Your task to perform on an android device: turn off priority inbox in the gmail app Image 0: 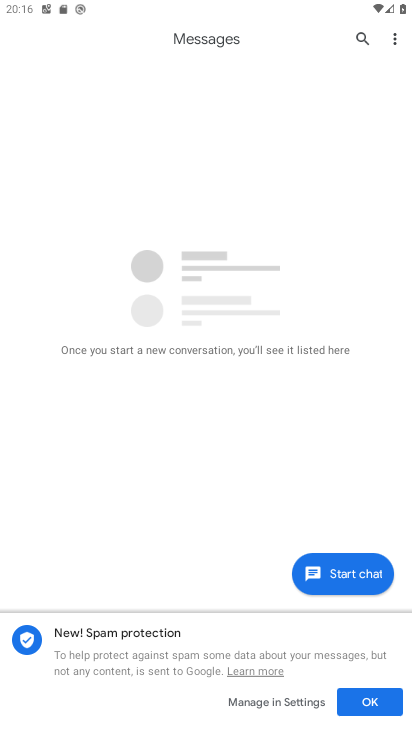
Step 0: press home button
Your task to perform on an android device: turn off priority inbox in the gmail app Image 1: 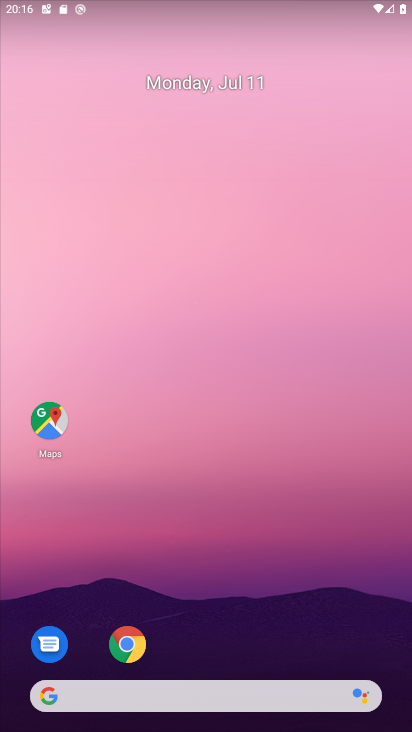
Step 1: drag from (220, 678) to (195, 125)
Your task to perform on an android device: turn off priority inbox in the gmail app Image 2: 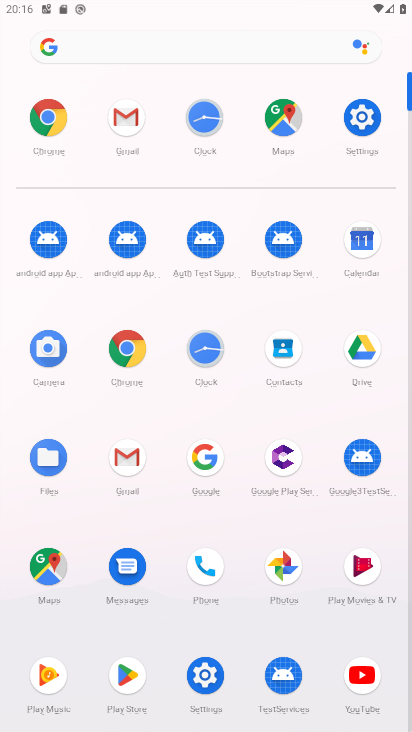
Step 2: click (195, 444)
Your task to perform on an android device: turn off priority inbox in the gmail app Image 3: 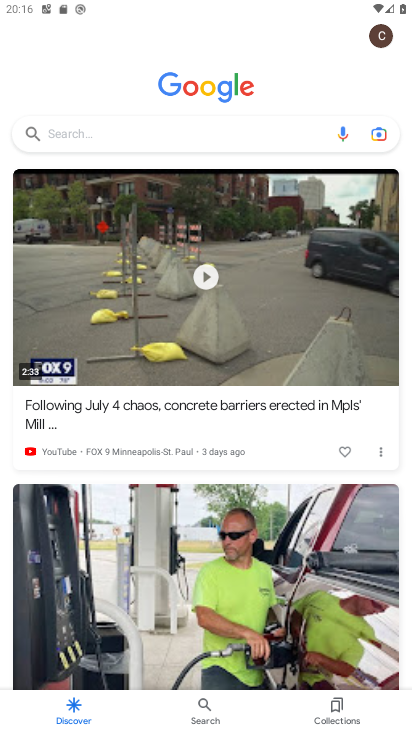
Step 3: press home button
Your task to perform on an android device: turn off priority inbox in the gmail app Image 4: 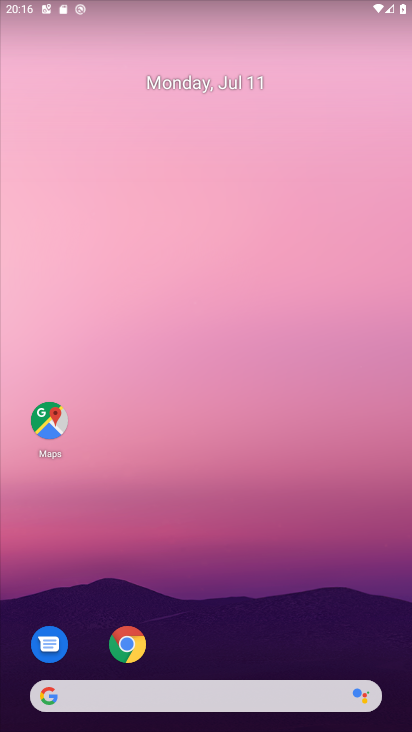
Step 4: drag from (240, 627) to (211, 165)
Your task to perform on an android device: turn off priority inbox in the gmail app Image 5: 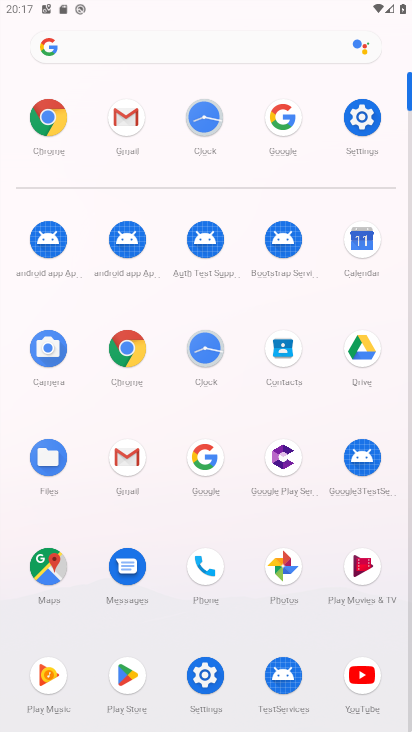
Step 5: click (122, 458)
Your task to perform on an android device: turn off priority inbox in the gmail app Image 6: 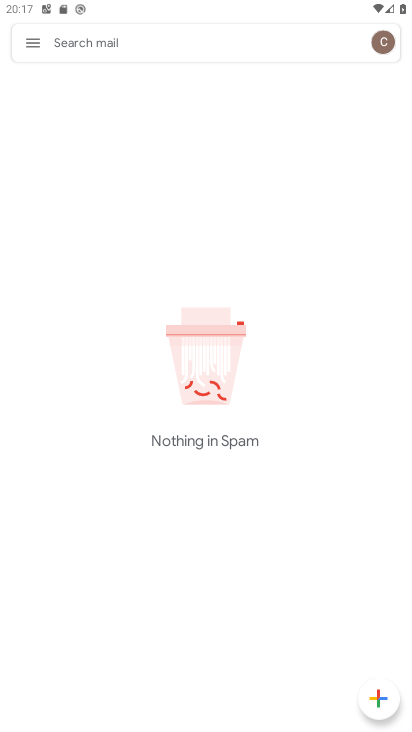
Step 6: click (25, 37)
Your task to perform on an android device: turn off priority inbox in the gmail app Image 7: 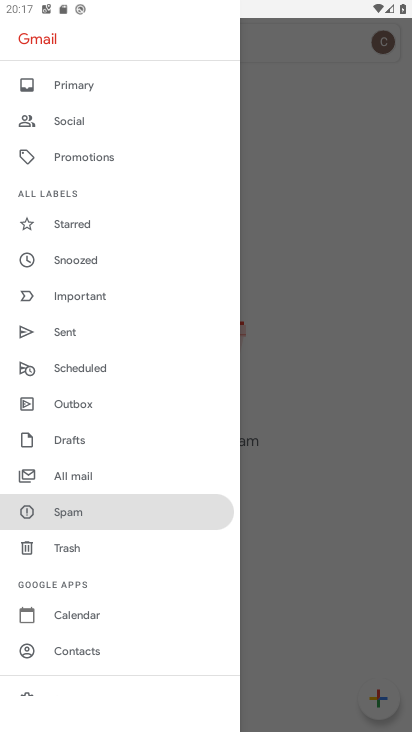
Step 7: drag from (108, 611) to (101, 261)
Your task to perform on an android device: turn off priority inbox in the gmail app Image 8: 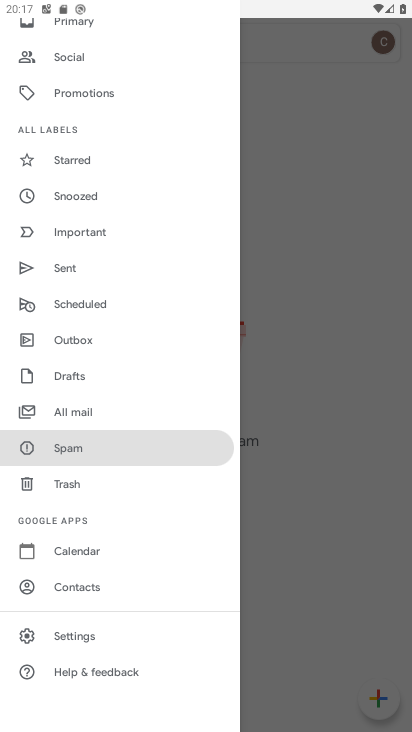
Step 8: click (92, 634)
Your task to perform on an android device: turn off priority inbox in the gmail app Image 9: 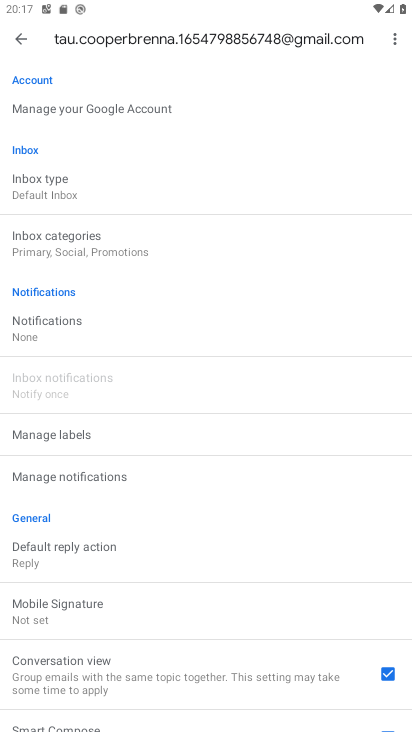
Step 9: click (57, 178)
Your task to perform on an android device: turn off priority inbox in the gmail app Image 10: 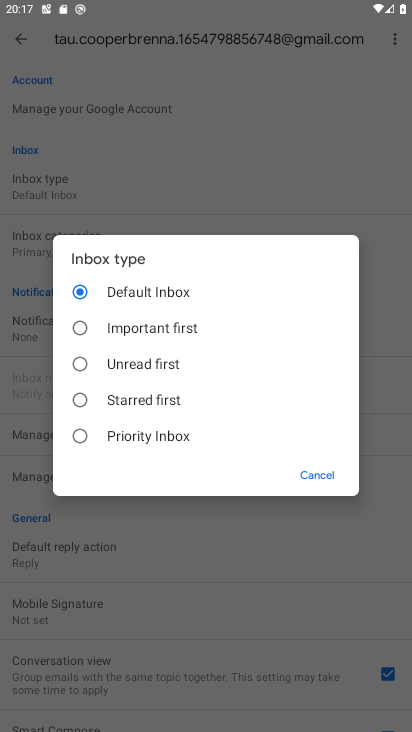
Step 10: task complete